Your task to perform on an android device: Clear all items from cart on ebay.com. Add "bose quietcomfort 35" to the cart on ebay.com, then select checkout. Image 0: 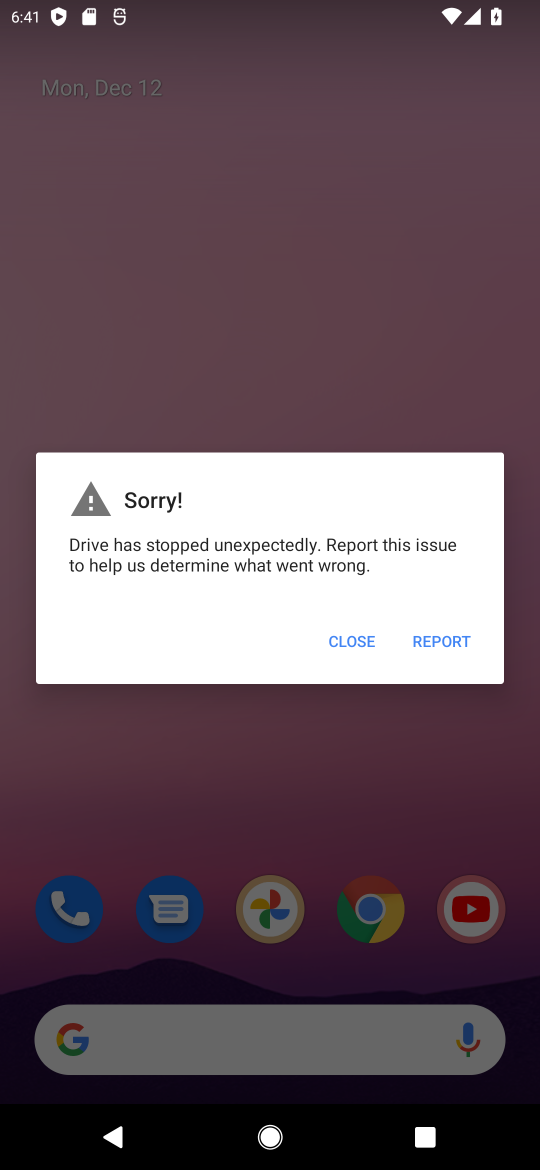
Step 0: click (328, 644)
Your task to perform on an android device: Clear all items from cart on ebay.com. Add "bose quietcomfort 35" to the cart on ebay.com, then select checkout. Image 1: 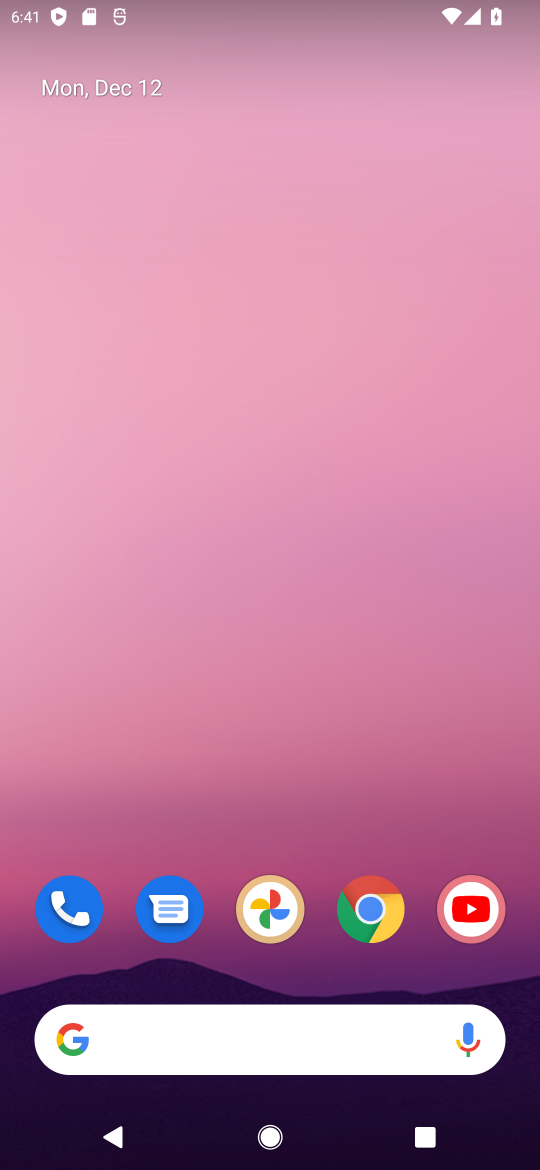
Step 1: click (375, 912)
Your task to perform on an android device: Clear all items from cart on ebay.com. Add "bose quietcomfort 35" to the cart on ebay.com, then select checkout. Image 2: 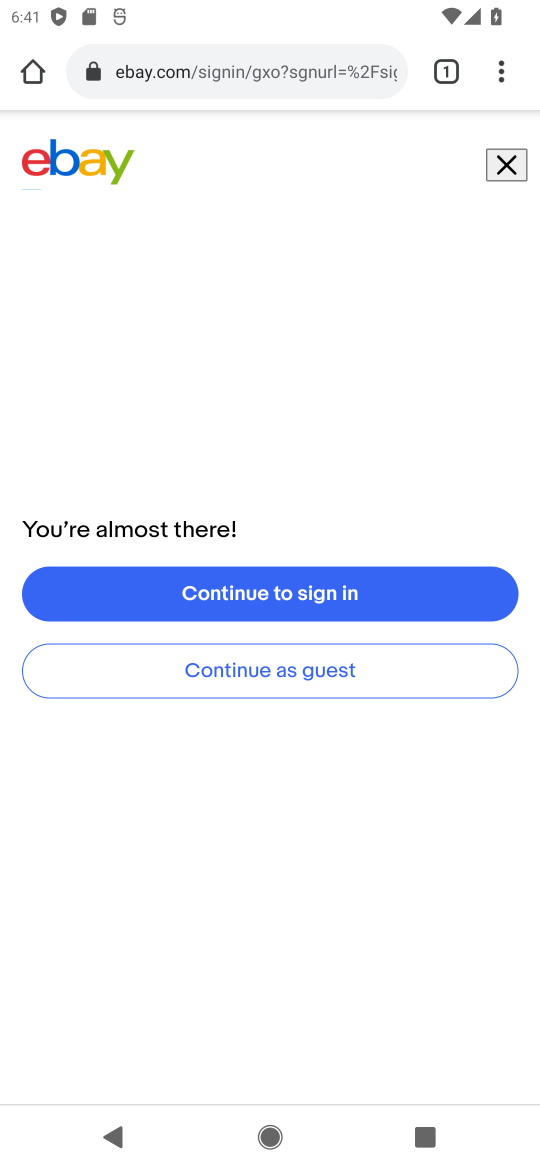
Step 2: click (324, 684)
Your task to perform on an android device: Clear all items from cart on ebay.com. Add "bose quietcomfort 35" to the cart on ebay.com, then select checkout. Image 3: 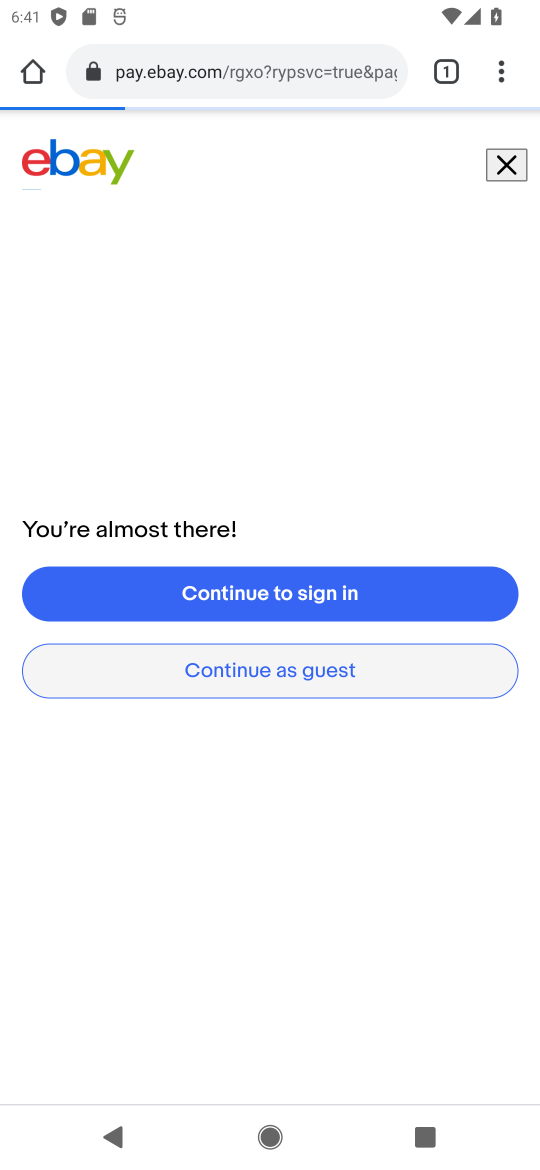
Step 3: click (297, 666)
Your task to perform on an android device: Clear all items from cart on ebay.com. Add "bose quietcomfort 35" to the cart on ebay.com, then select checkout. Image 4: 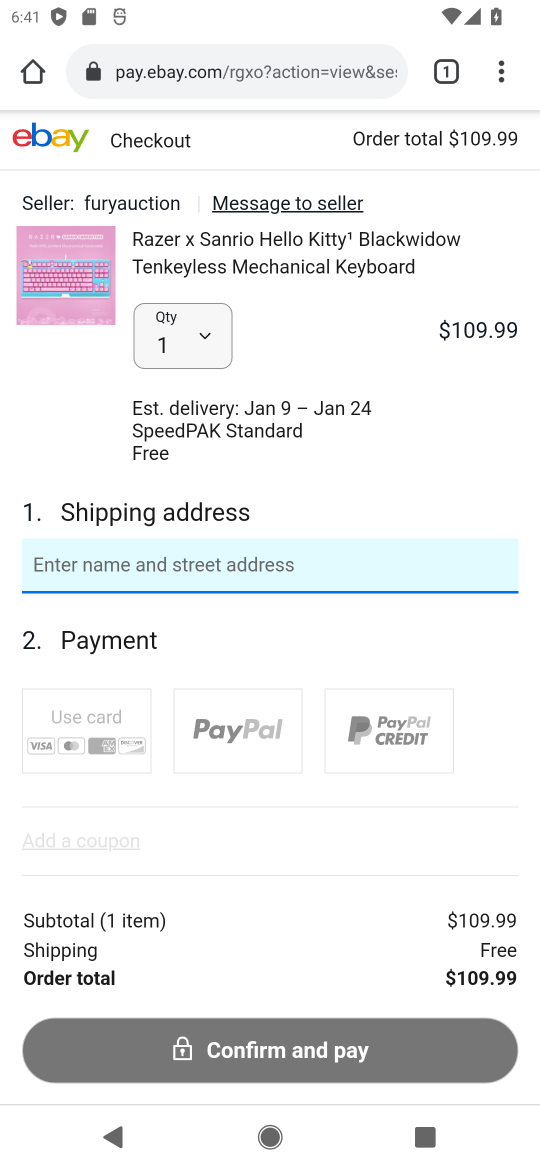
Step 4: press back button
Your task to perform on an android device: Clear all items from cart on ebay.com. Add "bose quietcomfort 35" to the cart on ebay.com, then select checkout. Image 5: 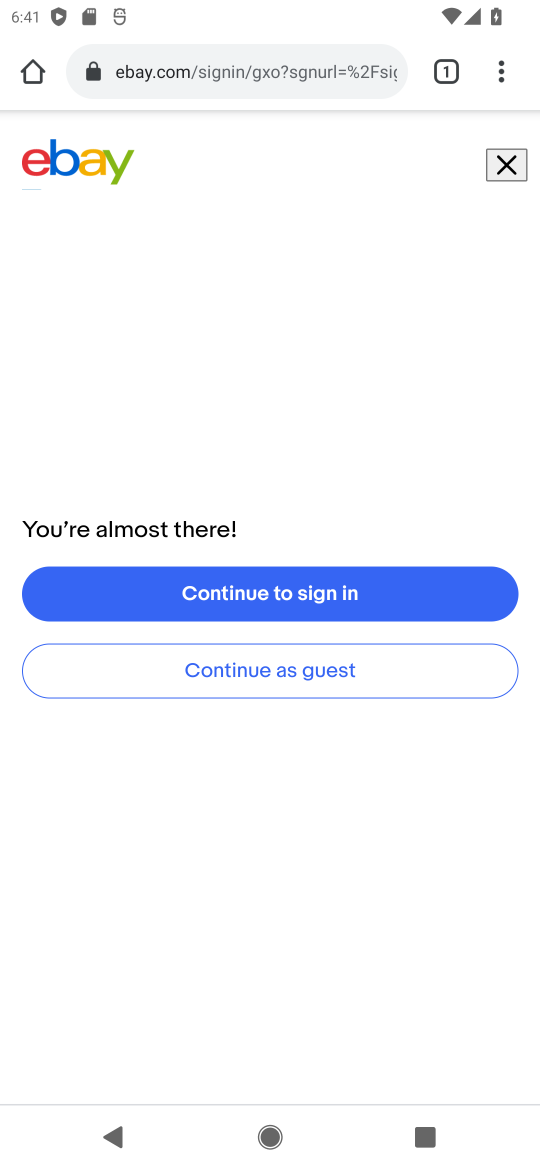
Step 5: click (510, 169)
Your task to perform on an android device: Clear all items from cart on ebay.com. Add "bose quietcomfort 35" to the cart on ebay.com, then select checkout. Image 6: 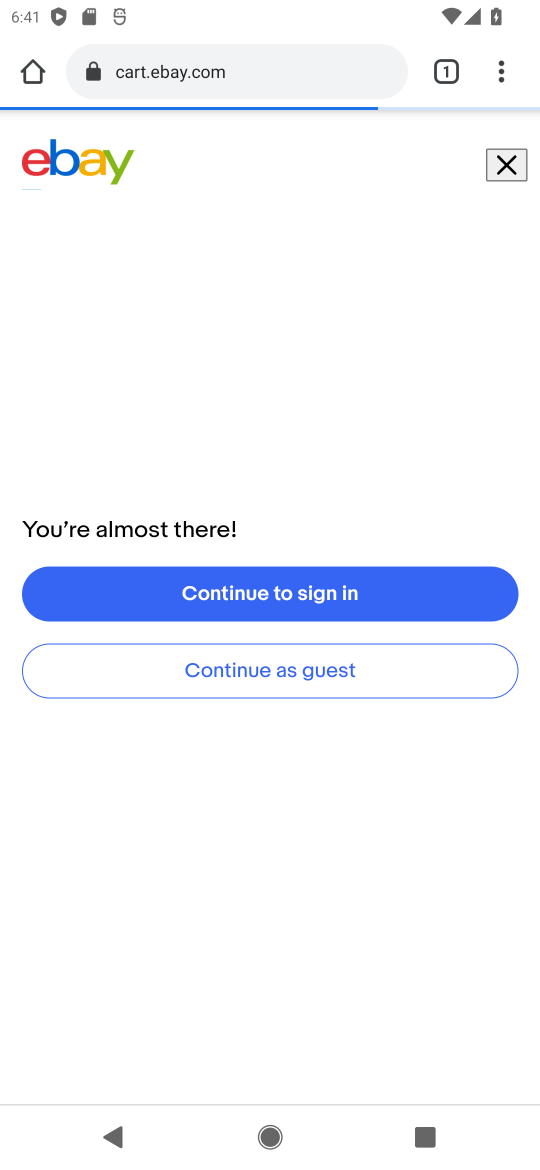
Step 6: click (510, 169)
Your task to perform on an android device: Clear all items from cart on ebay.com. Add "bose quietcomfort 35" to the cart on ebay.com, then select checkout. Image 7: 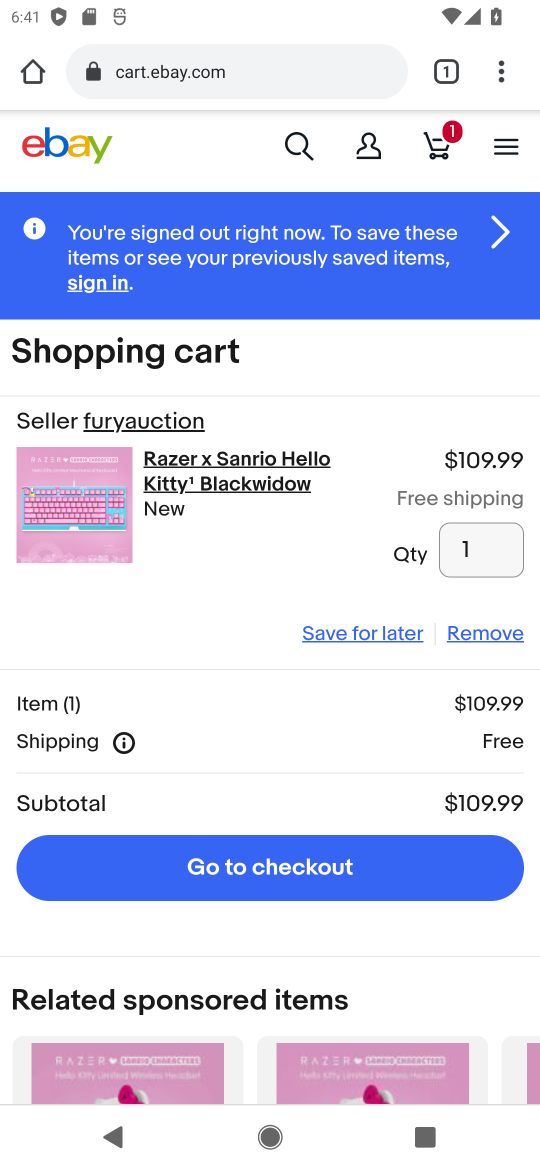
Step 7: click (474, 630)
Your task to perform on an android device: Clear all items from cart on ebay.com. Add "bose quietcomfort 35" to the cart on ebay.com, then select checkout. Image 8: 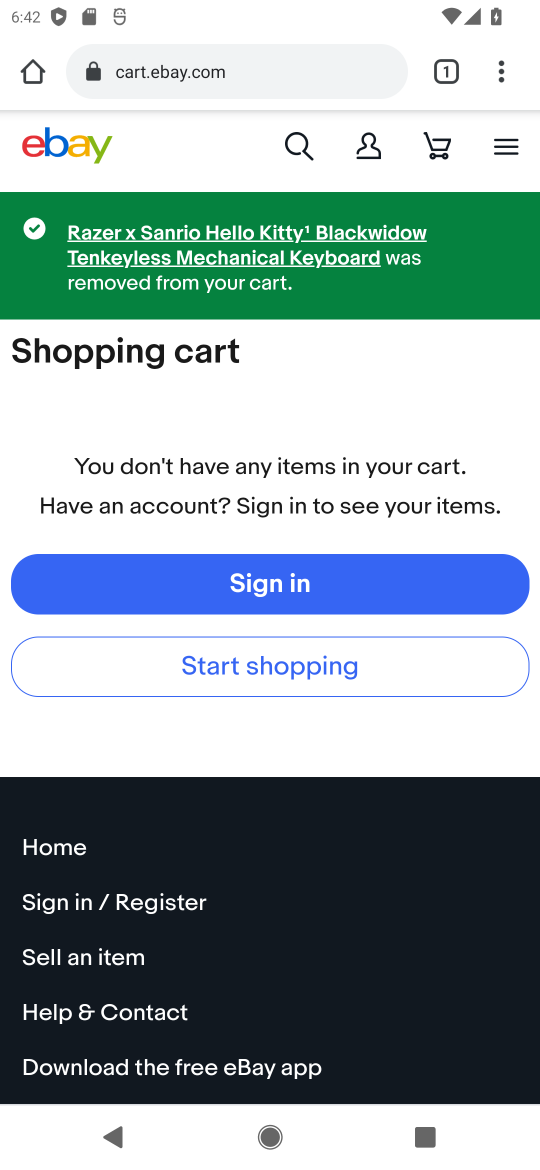
Step 8: click (289, 139)
Your task to perform on an android device: Clear all items from cart on ebay.com. Add "bose quietcomfort 35" to the cart on ebay.com, then select checkout. Image 9: 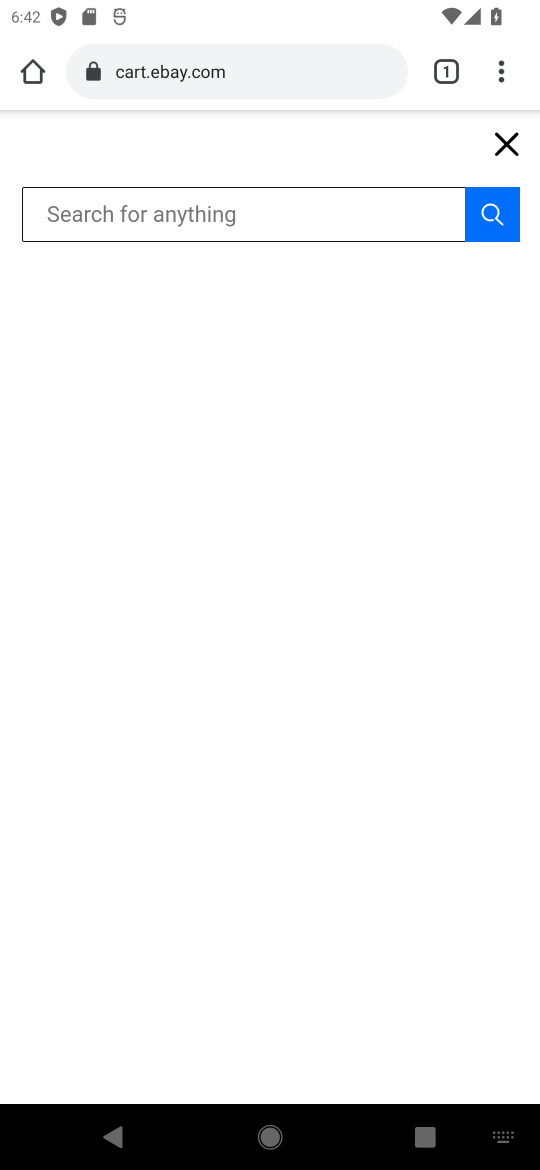
Step 9: type "bose quietcomfort 35"
Your task to perform on an android device: Clear all items from cart on ebay.com. Add "bose quietcomfort 35" to the cart on ebay.com, then select checkout. Image 10: 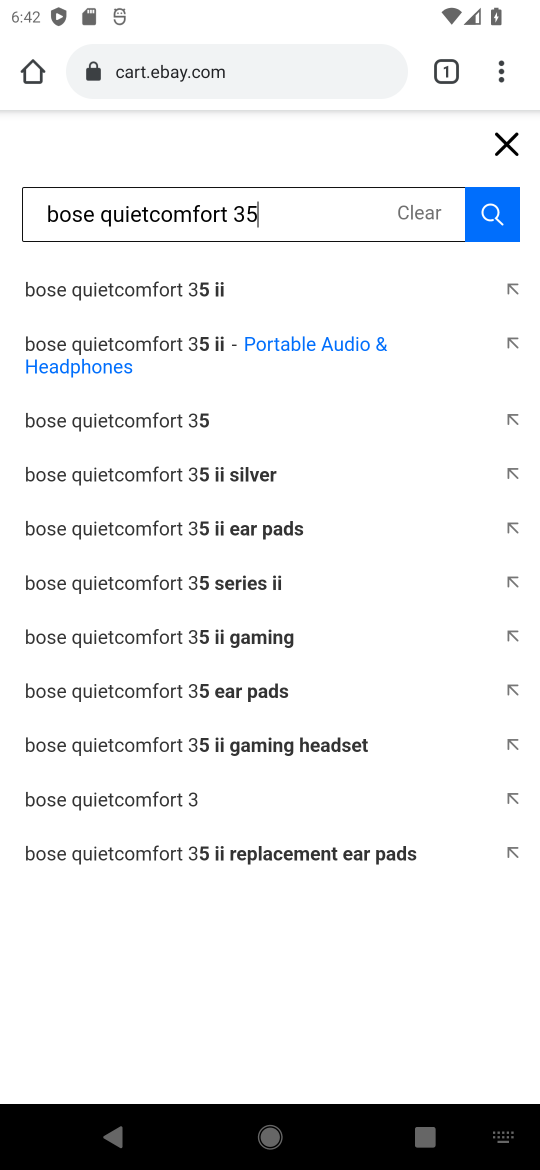
Step 10: click (493, 221)
Your task to perform on an android device: Clear all items from cart on ebay.com. Add "bose quietcomfort 35" to the cart on ebay.com, then select checkout. Image 11: 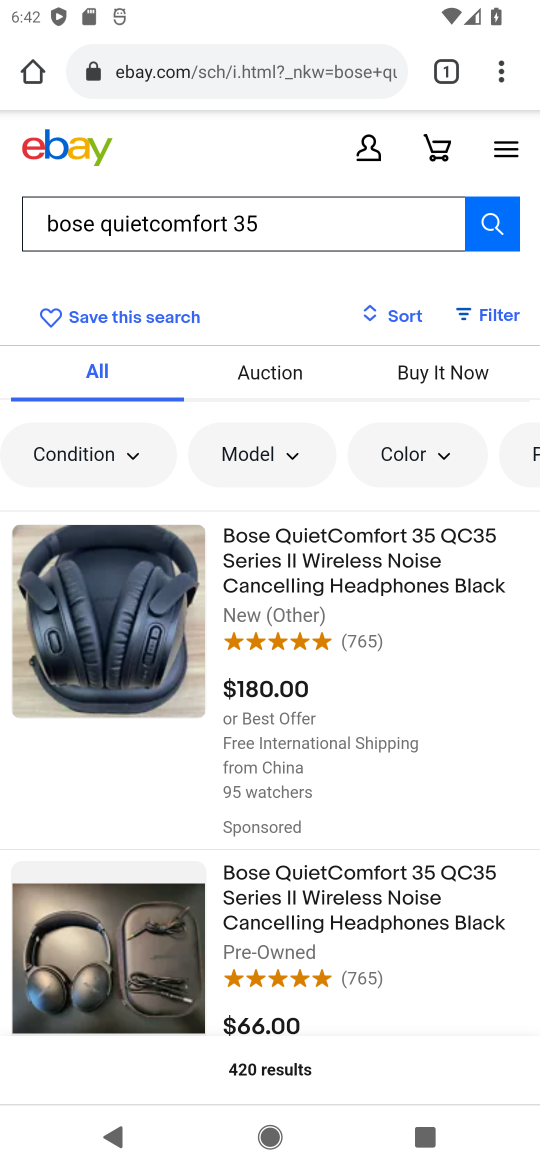
Step 11: click (262, 596)
Your task to perform on an android device: Clear all items from cart on ebay.com. Add "bose quietcomfort 35" to the cart on ebay.com, then select checkout. Image 12: 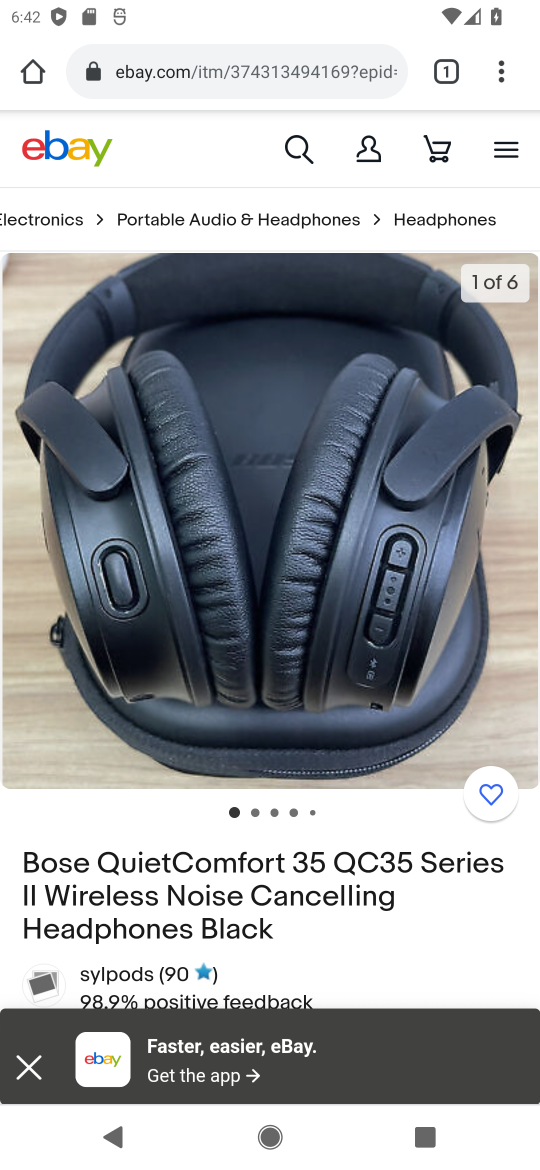
Step 12: drag from (221, 935) to (372, 280)
Your task to perform on an android device: Clear all items from cart on ebay.com. Add "bose quietcomfort 35" to the cart on ebay.com, then select checkout. Image 13: 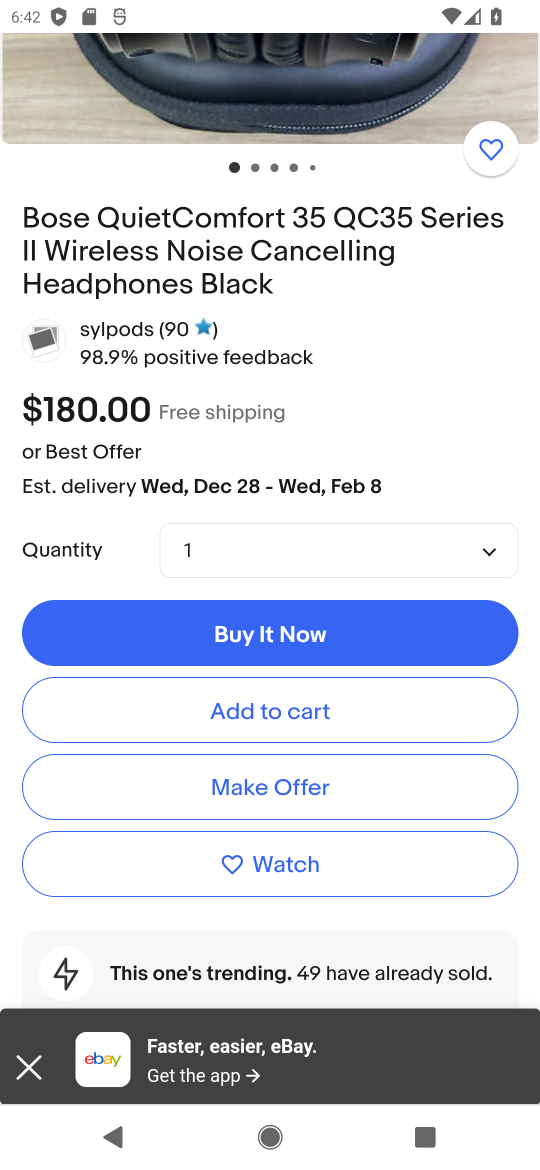
Step 13: click (120, 724)
Your task to perform on an android device: Clear all items from cart on ebay.com. Add "bose quietcomfort 35" to the cart on ebay.com, then select checkout. Image 14: 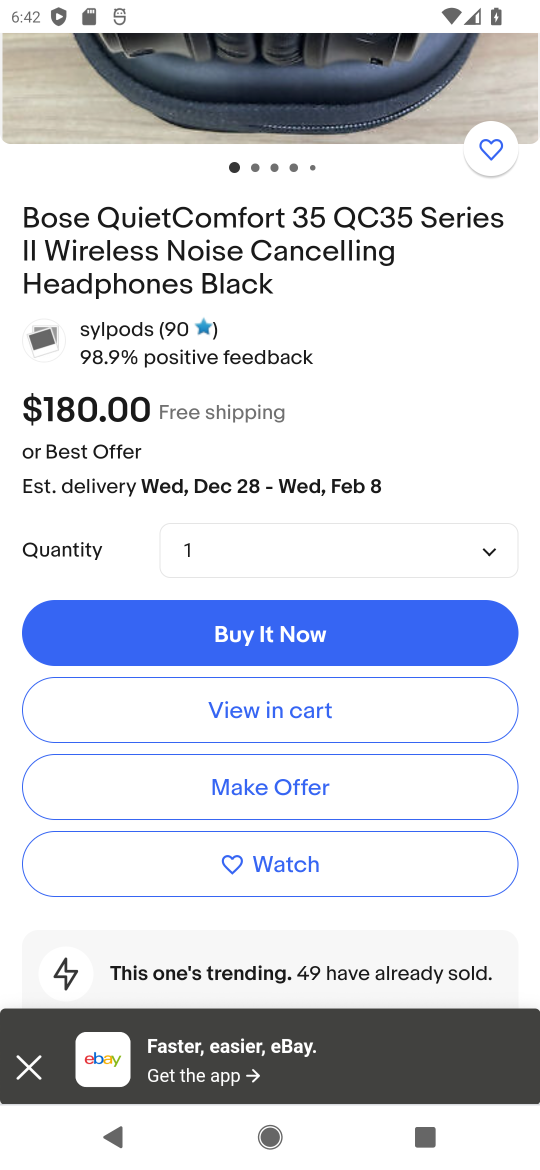
Step 14: click (120, 724)
Your task to perform on an android device: Clear all items from cart on ebay.com. Add "bose quietcomfort 35" to the cart on ebay.com, then select checkout. Image 15: 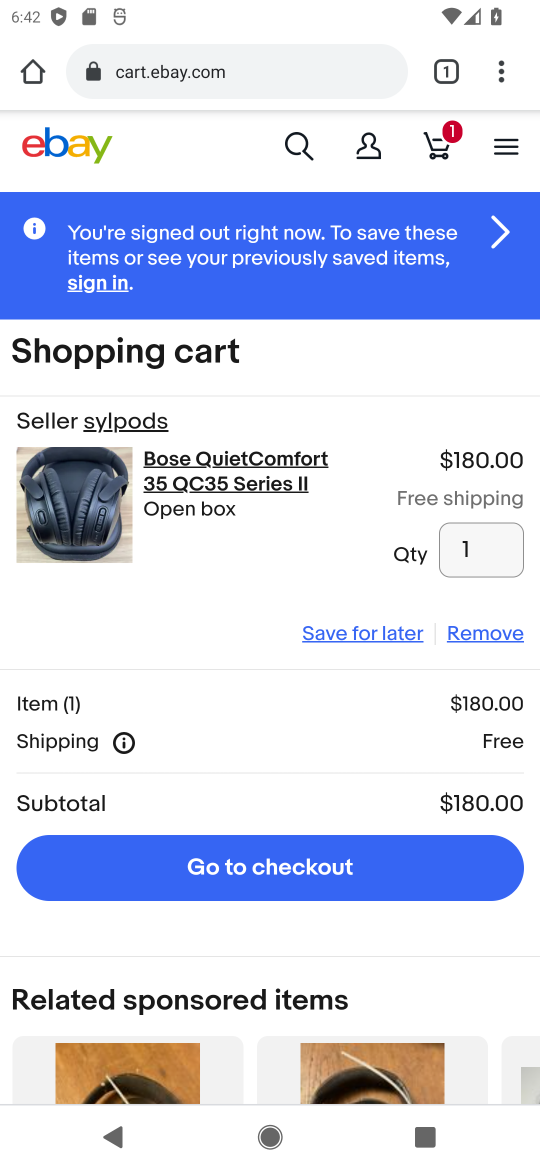
Step 15: click (237, 878)
Your task to perform on an android device: Clear all items from cart on ebay.com. Add "bose quietcomfort 35" to the cart on ebay.com, then select checkout. Image 16: 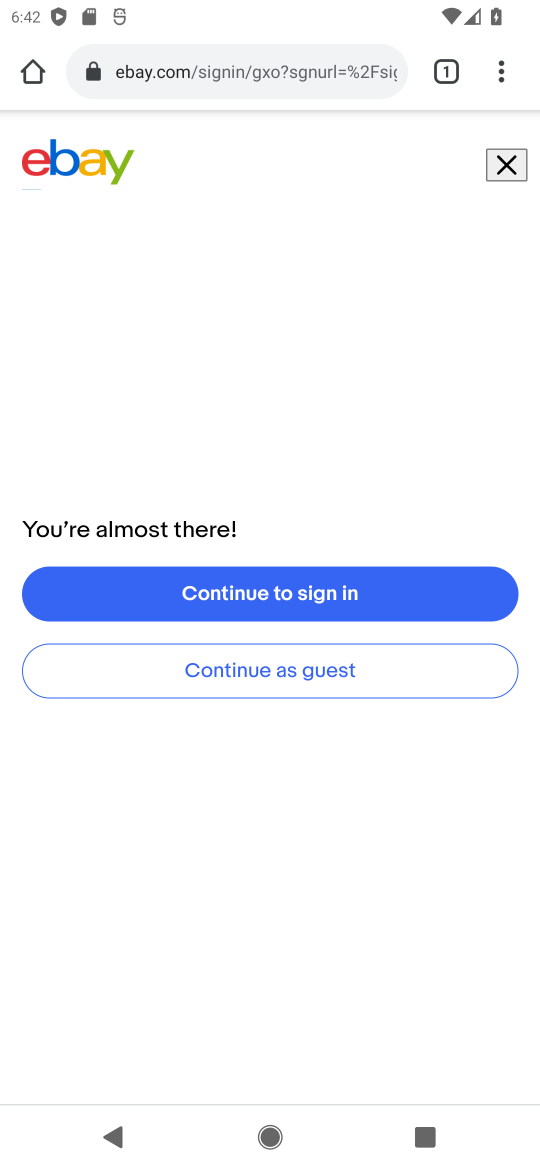
Step 16: task complete